Your task to perform on an android device: Open calendar and show me the third week of next month Image 0: 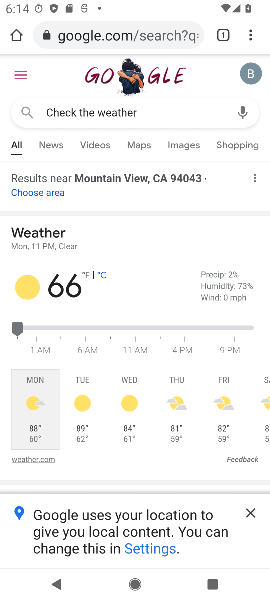
Step 0: press home button
Your task to perform on an android device: Open calendar and show me the third week of next month Image 1: 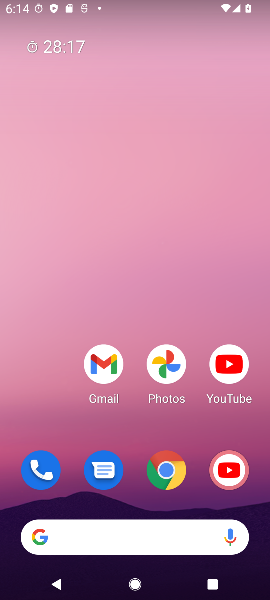
Step 1: drag from (136, 497) to (144, 18)
Your task to perform on an android device: Open calendar and show me the third week of next month Image 2: 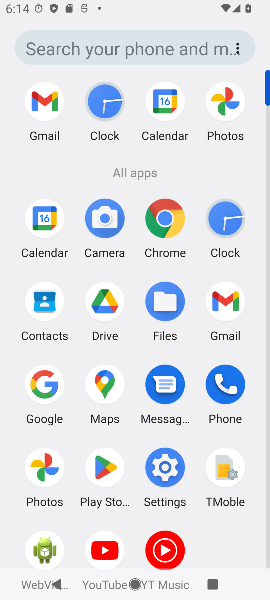
Step 2: click (42, 221)
Your task to perform on an android device: Open calendar and show me the third week of next month Image 3: 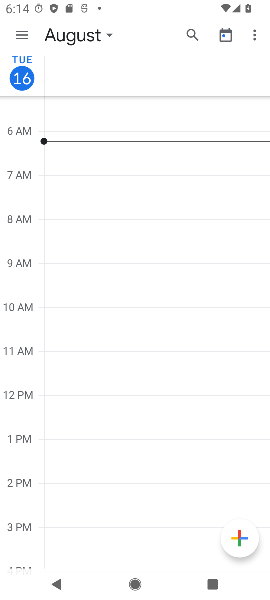
Step 3: click (88, 37)
Your task to perform on an android device: Open calendar and show me the third week of next month Image 4: 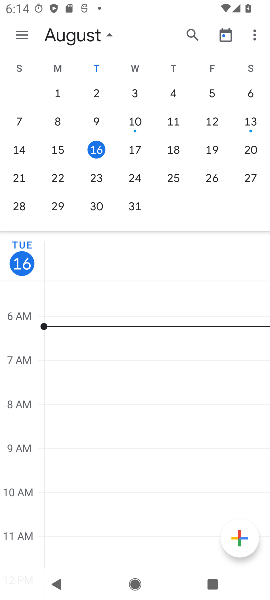
Step 4: drag from (213, 144) to (6, 145)
Your task to perform on an android device: Open calendar and show me the third week of next month Image 5: 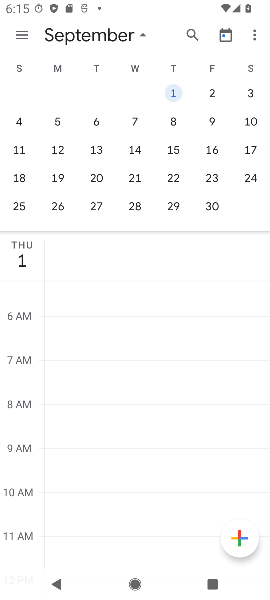
Step 5: click (96, 178)
Your task to perform on an android device: Open calendar and show me the third week of next month Image 6: 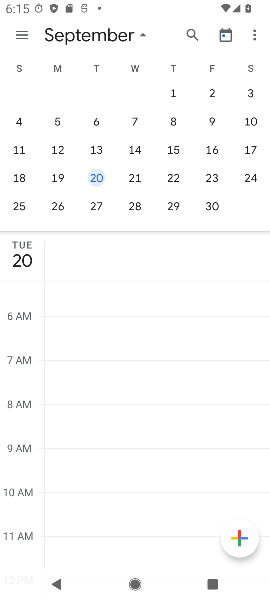
Step 6: task complete